Your task to perform on an android device: Open sound settings Image 0: 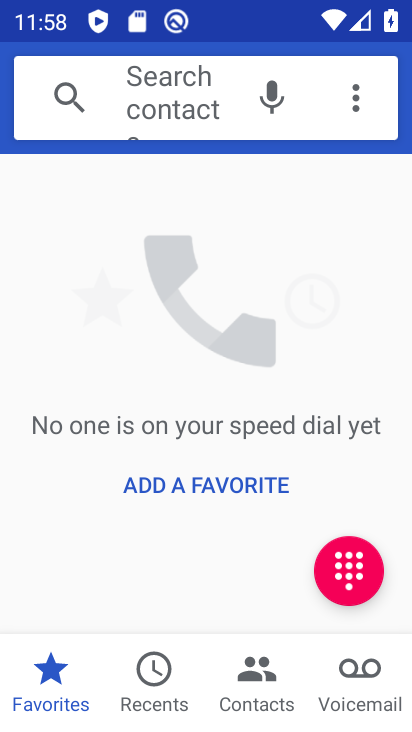
Step 0: press home button
Your task to perform on an android device: Open sound settings Image 1: 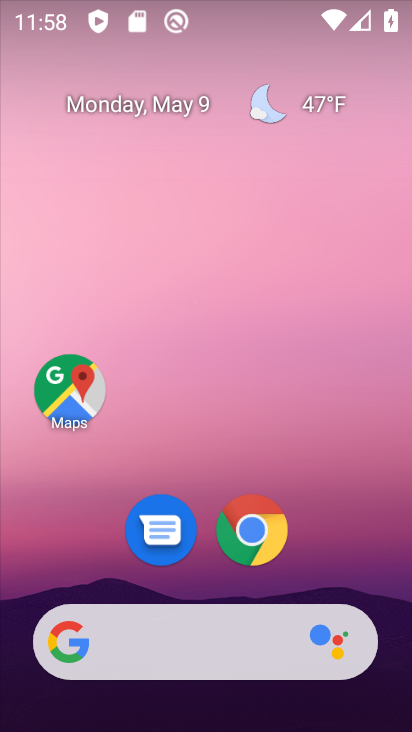
Step 1: drag from (344, 502) to (358, 97)
Your task to perform on an android device: Open sound settings Image 2: 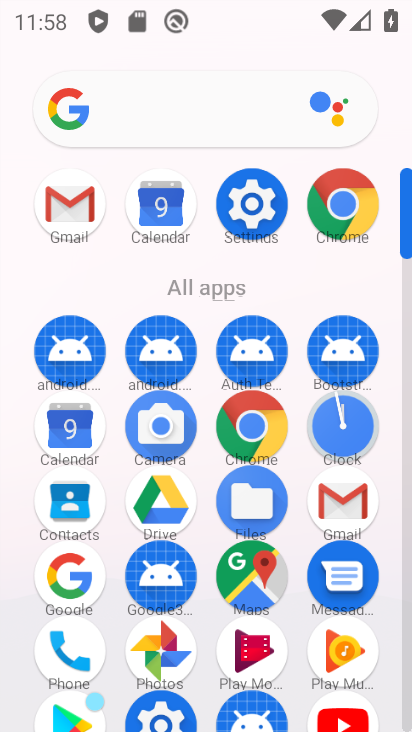
Step 2: click (258, 223)
Your task to perform on an android device: Open sound settings Image 3: 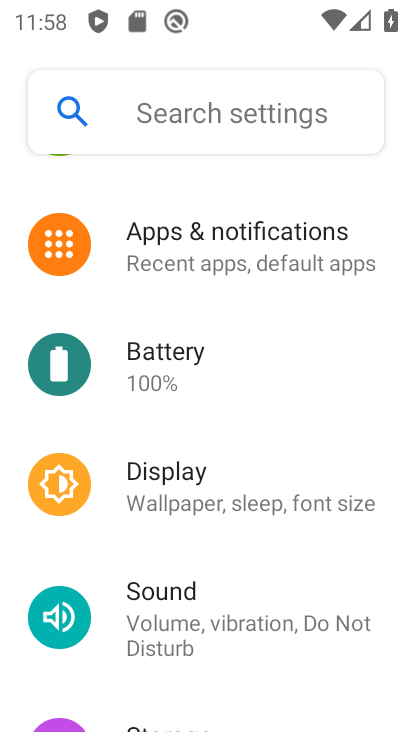
Step 3: click (209, 626)
Your task to perform on an android device: Open sound settings Image 4: 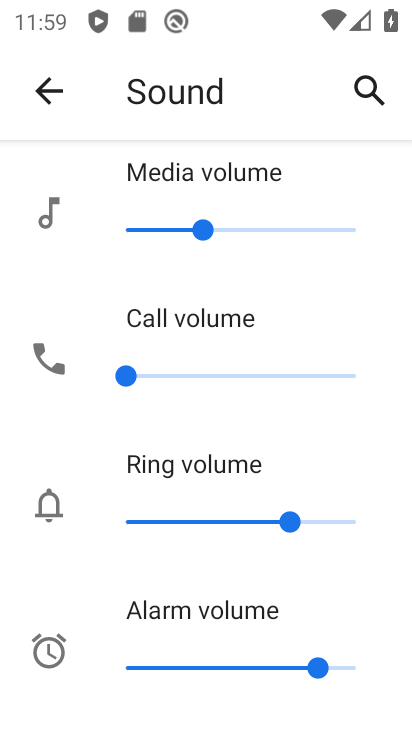
Step 4: task complete